Your task to perform on an android device: Add bose soundlink to the cart on amazon Image 0: 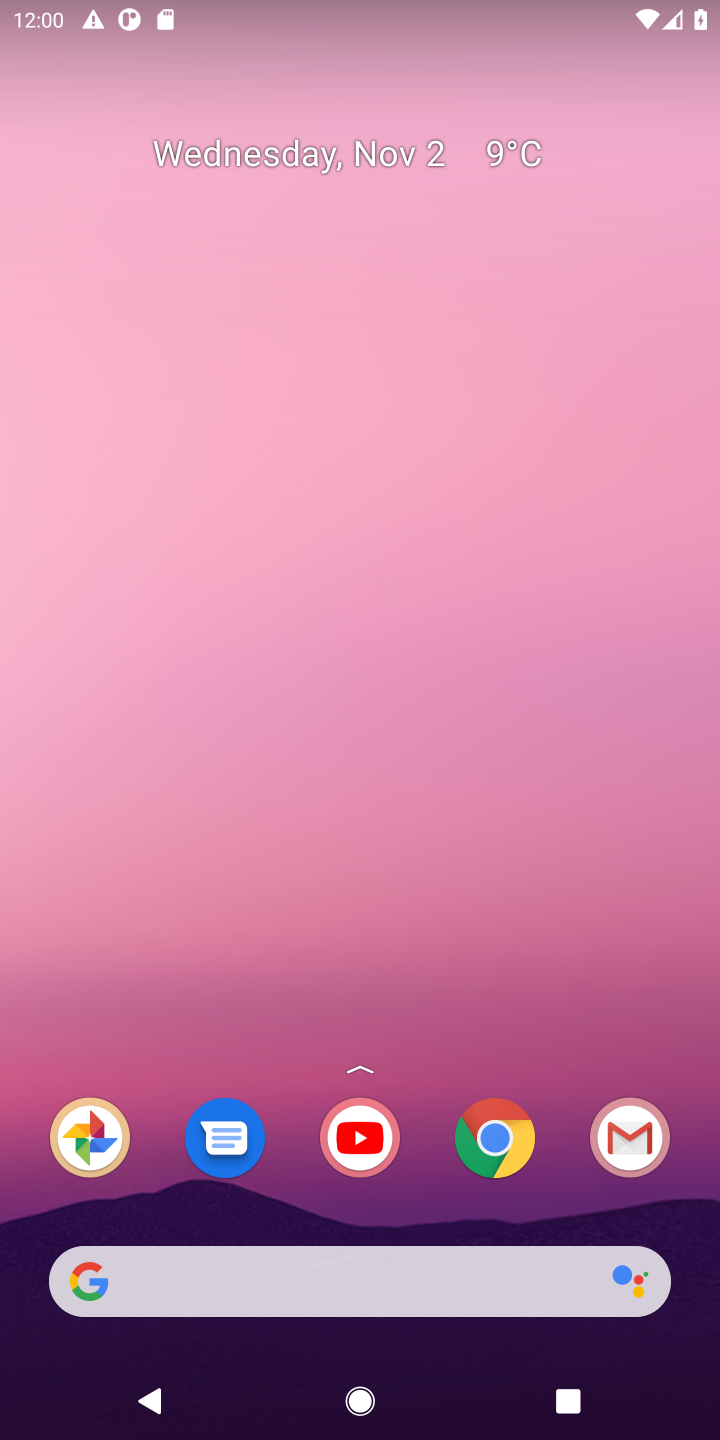
Step 0: click (408, 1277)
Your task to perform on an android device: Add bose soundlink to the cart on amazon Image 1: 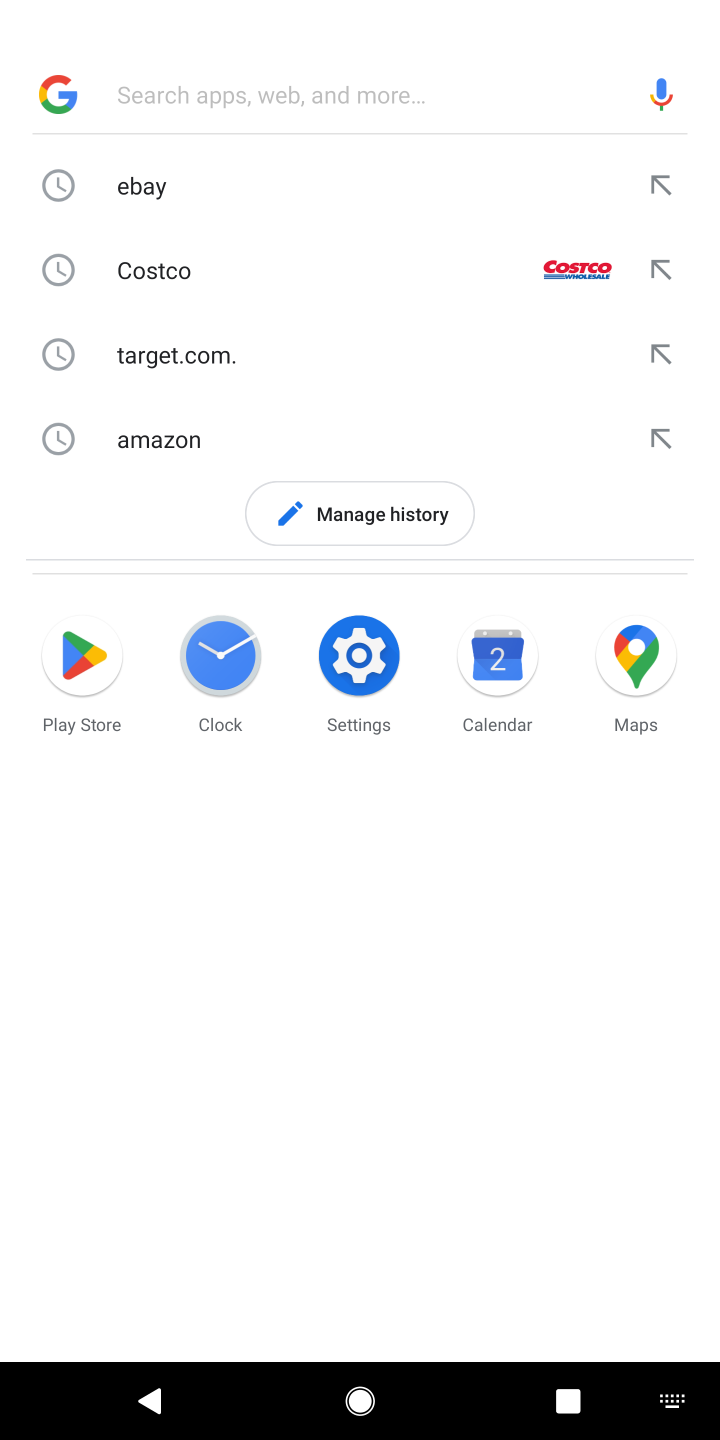
Step 1: type "amazon"
Your task to perform on an android device: Add bose soundlink to the cart on amazon Image 2: 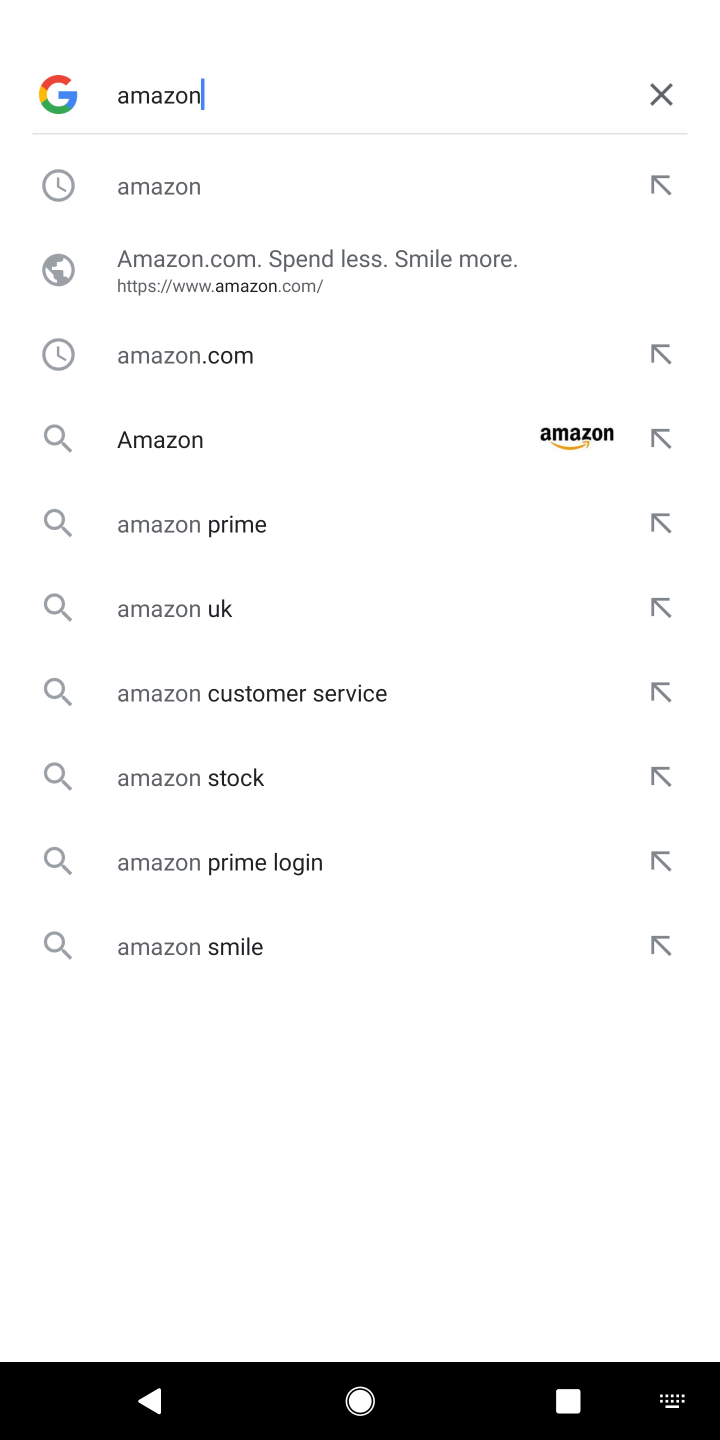
Step 2: click (193, 191)
Your task to perform on an android device: Add bose soundlink to the cart on amazon Image 3: 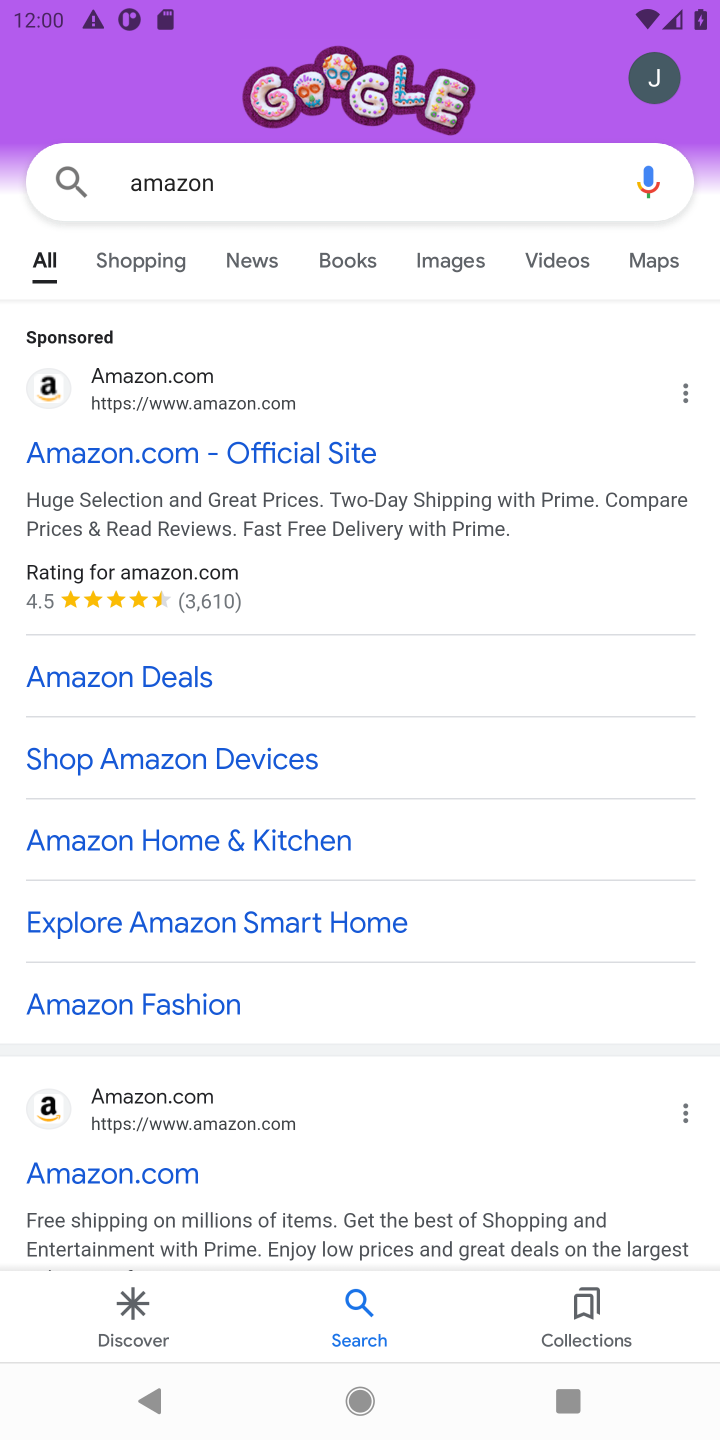
Step 3: click (155, 452)
Your task to perform on an android device: Add bose soundlink to the cart on amazon Image 4: 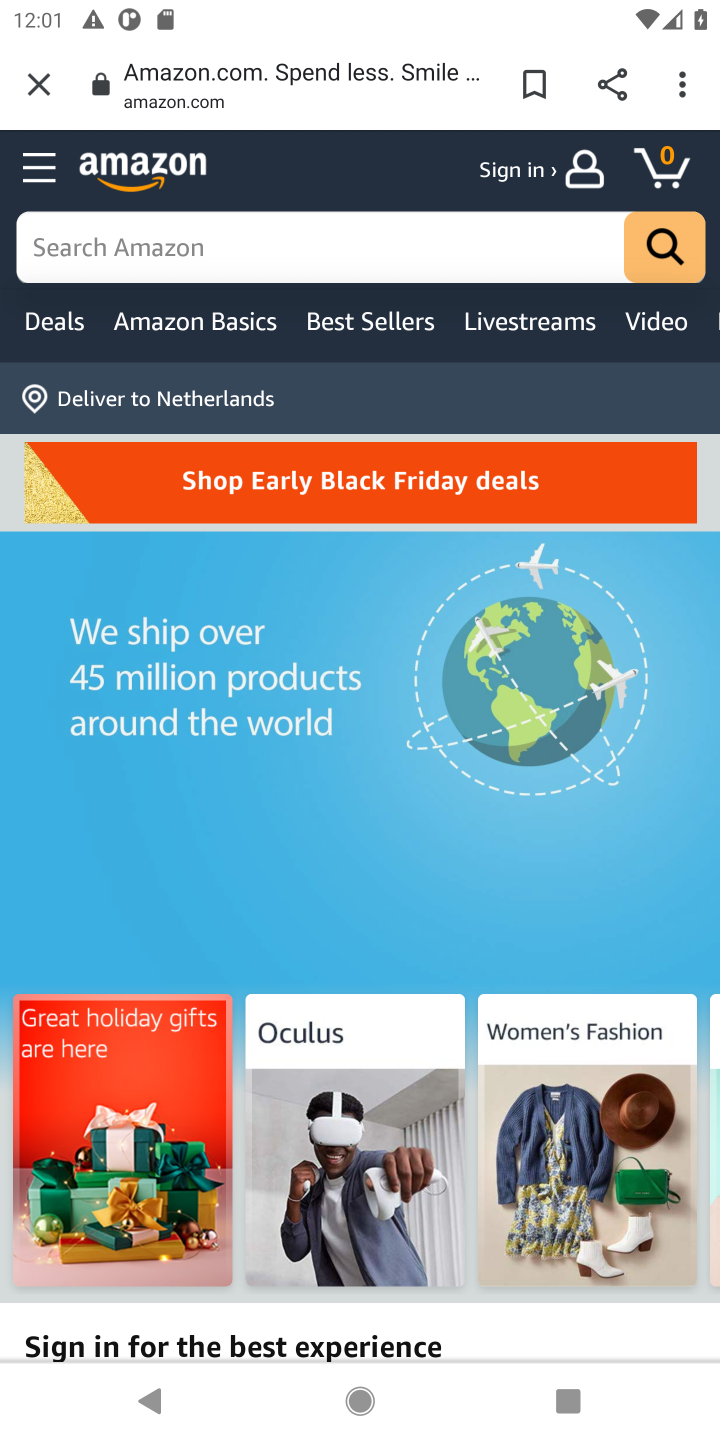
Step 4: click (372, 233)
Your task to perform on an android device: Add bose soundlink to the cart on amazon Image 5: 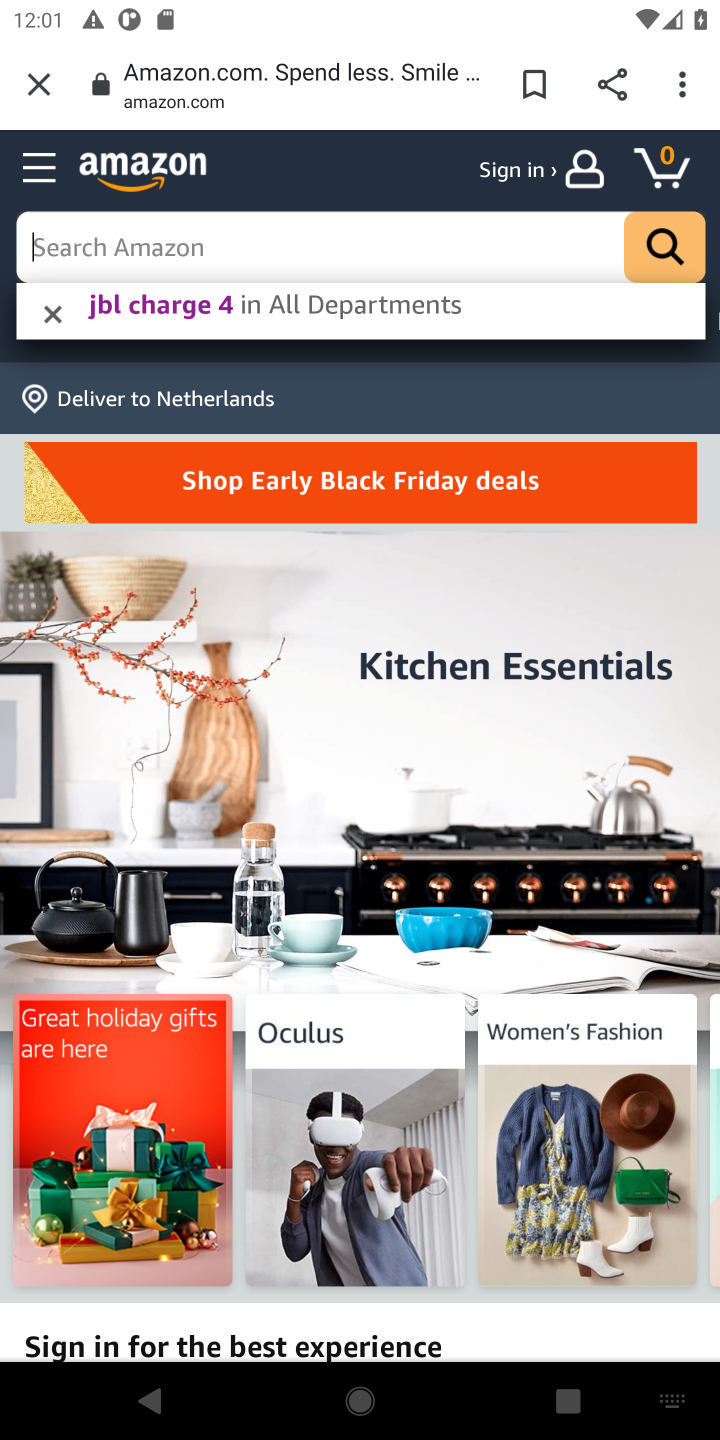
Step 5: type "bose soundlink "
Your task to perform on an android device: Add bose soundlink to the cart on amazon Image 6: 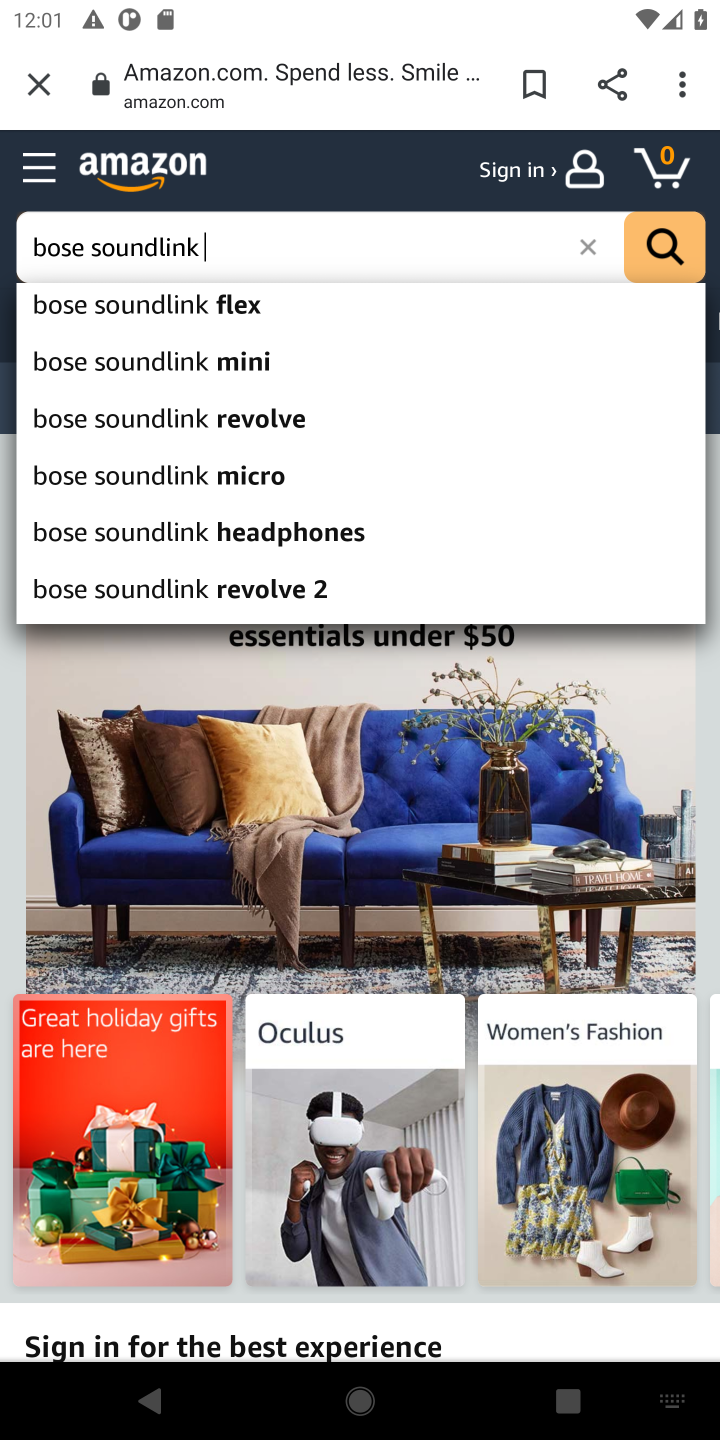
Step 6: click (671, 236)
Your task to perform on an android device: Add bose soundlink to the cart on amazon Image 7: 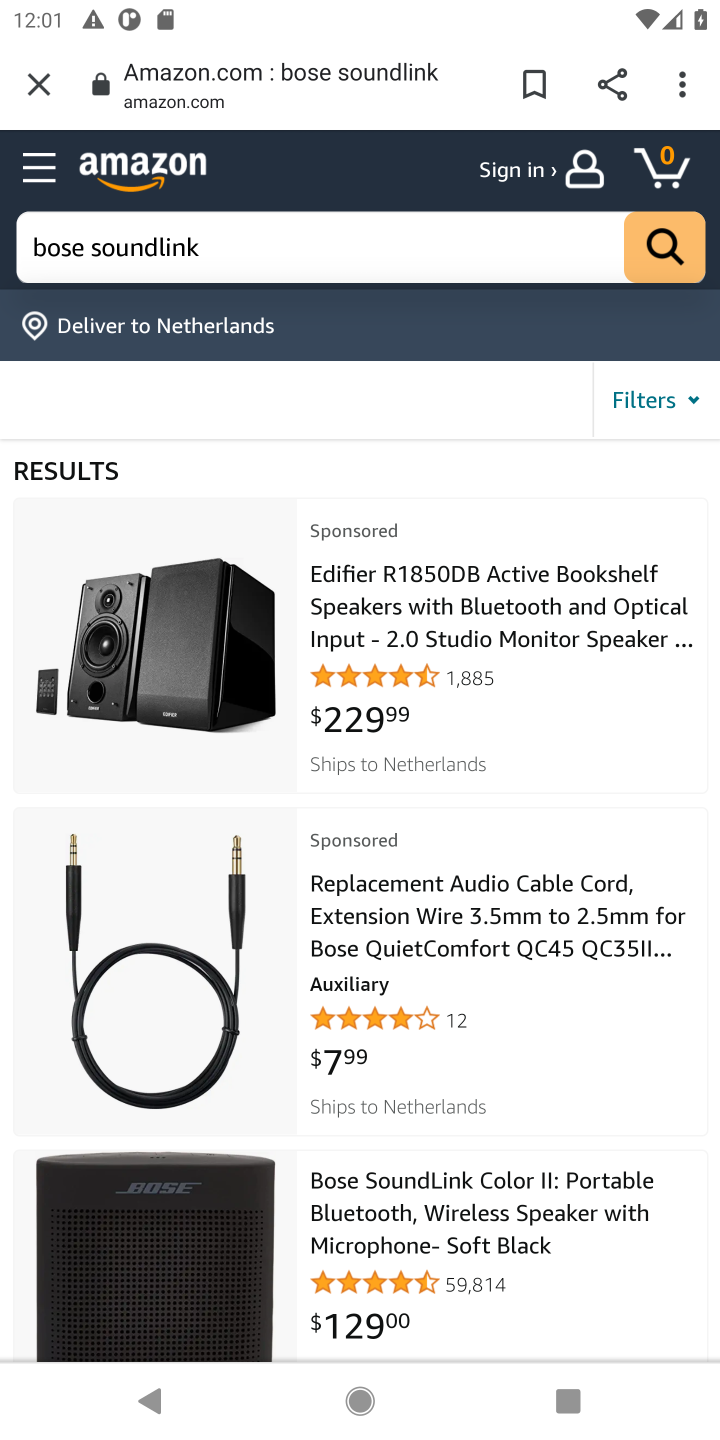
Step 7: click (494, 643)
Your task to perform on an android device: Add bose soundlink to the cart on amazon Image 8: 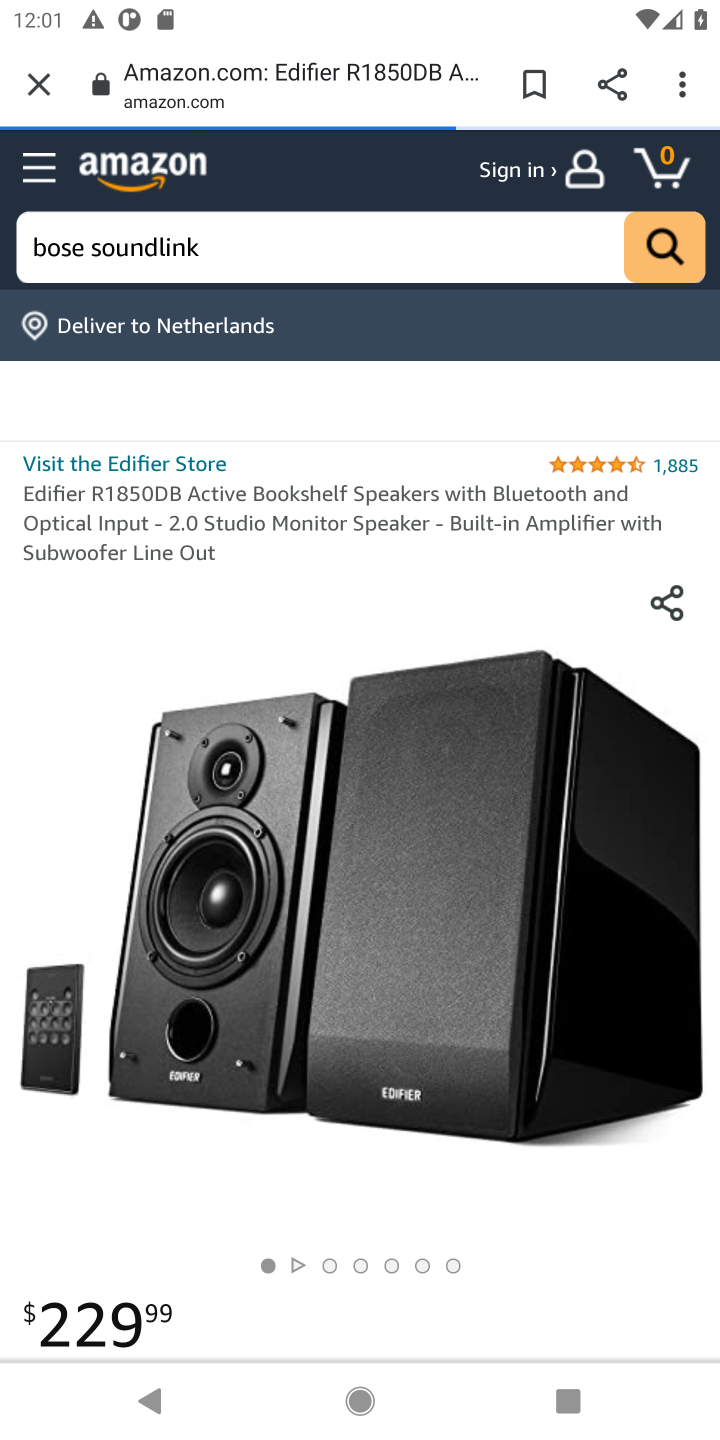
Step 8: drag from (501, 1162) to (459, 376)
Your task to perform on an android device: Add bose soundlink to the cart on amazon Image 9: 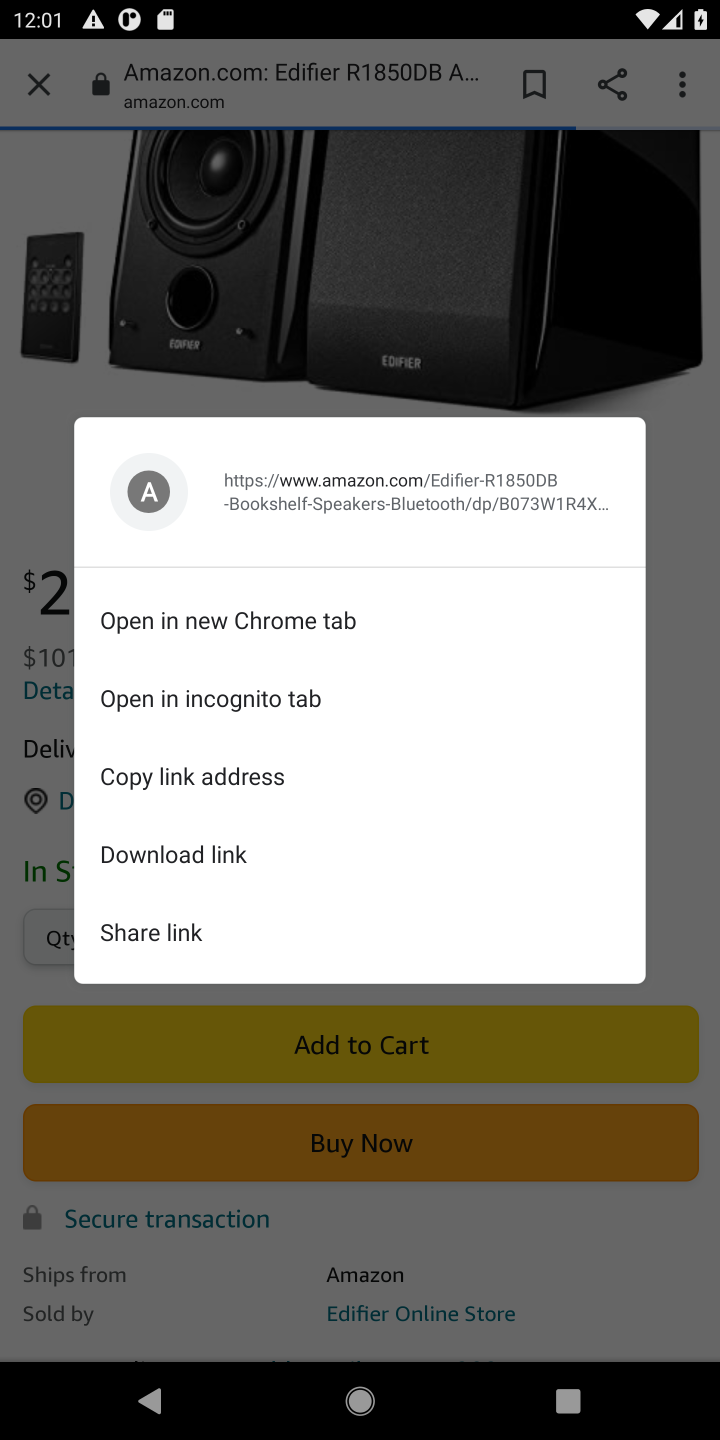
Step 9: click (469, 1111)
Your task to perform on an android device: Add bose soundlink to the cart on amazon Image 10: 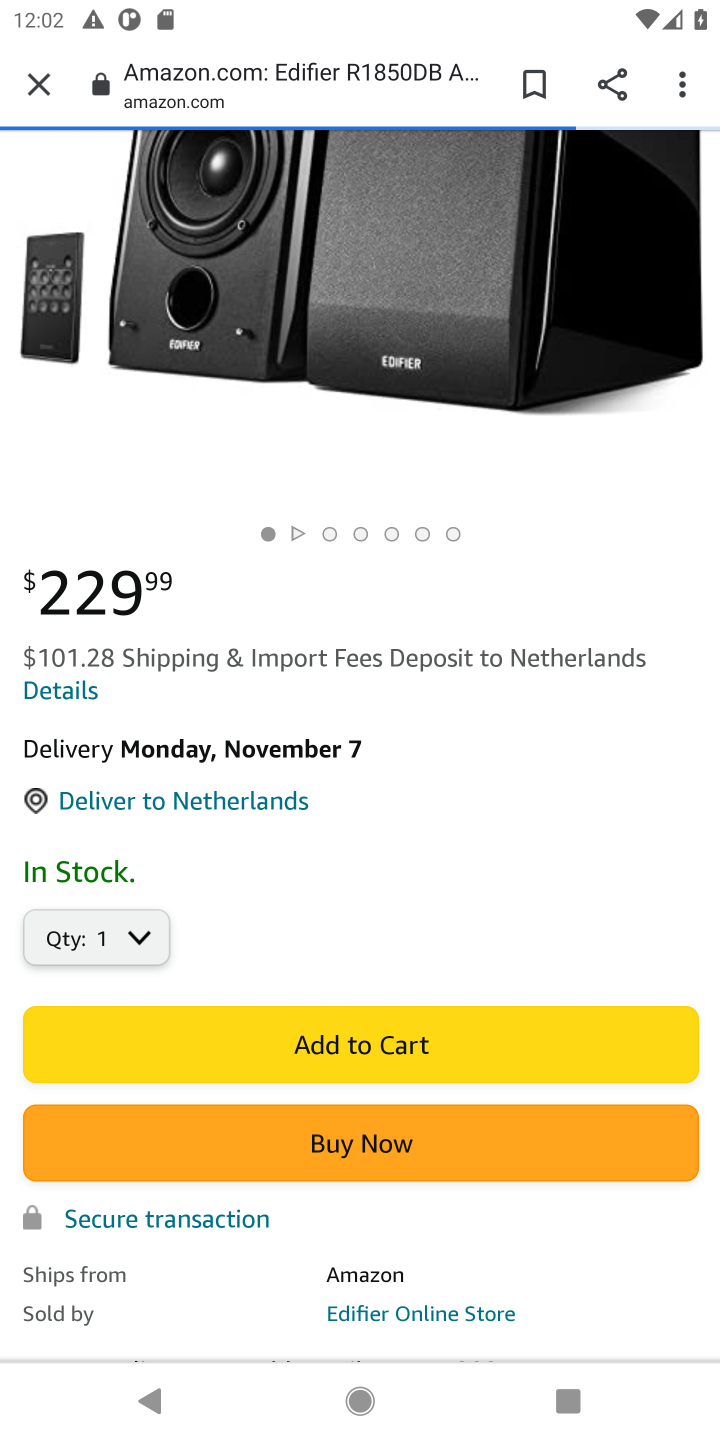
Step 10: click (469, 1053)
Your task to perform on an android device: Add bose soundlink to the cart on amazon Image 11: 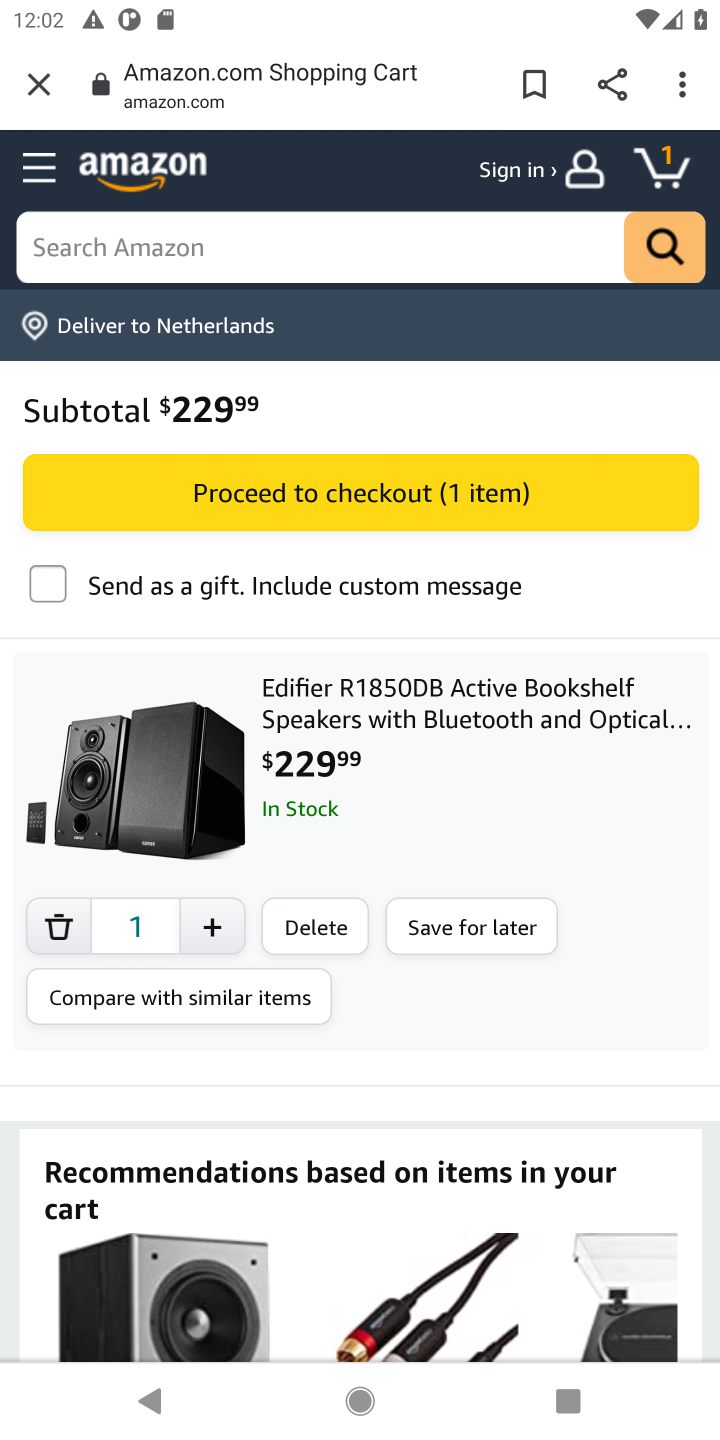
Step 11: task complete